Your task to perform on an android device: toggle translation in the chrome app Image 0: 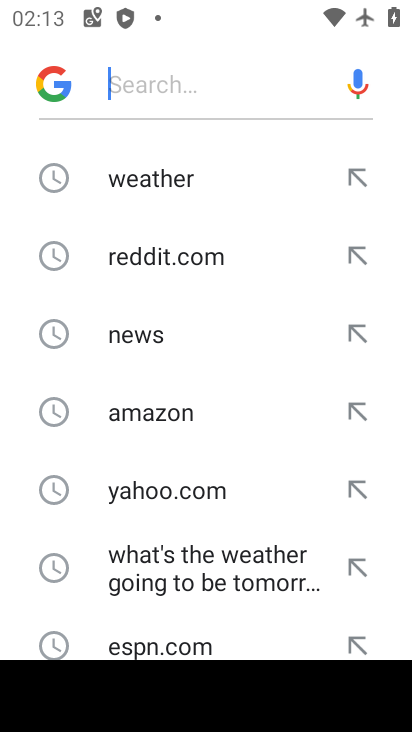
Step 0: press home button
Your task to perform on an android device: toggle translation in the chrome app Image 1: 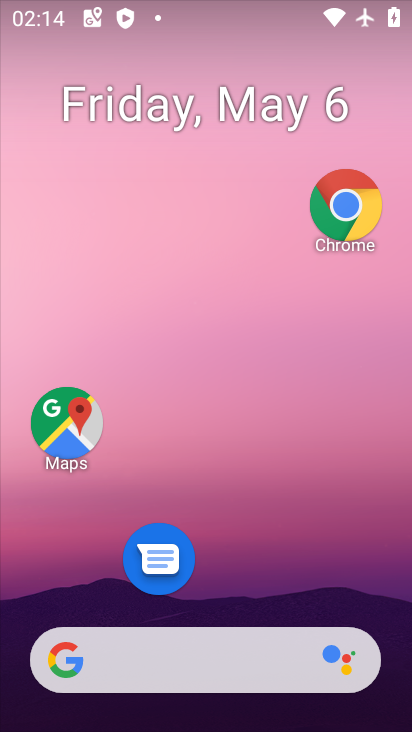
Step 1: click (350, 225)
Your task to perform on an android device: toggle translation in the chrome app Image 2: 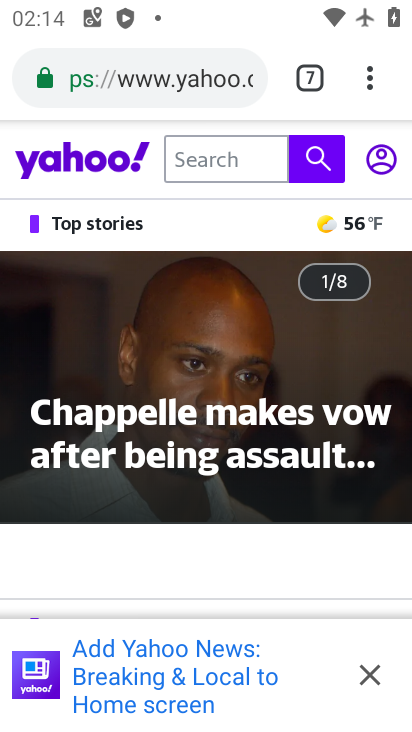
Step 2: drag from (370, 78) to (181, 611)
Your task to perform on an android device: toggle translation in the chrome app Image 3: 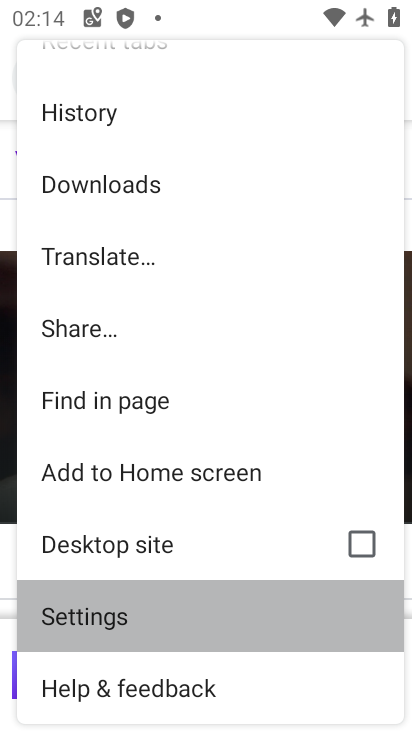
Step 3: click (181, 611)
Your task to perform on an android device: toggle translation in the chrome app Image 4: 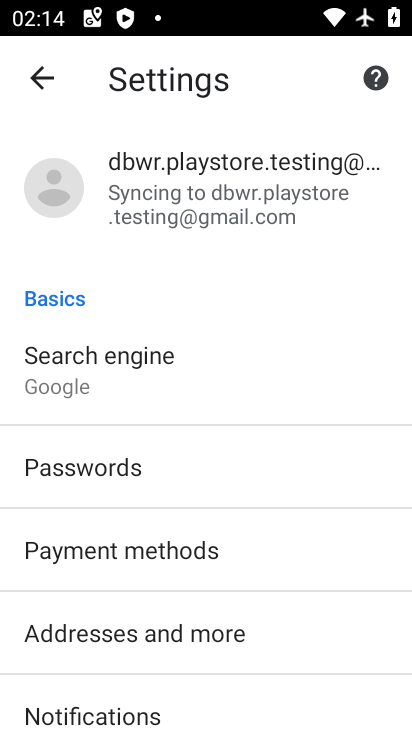
Step 4: drag from (160, 670) to (305, 123)
Your task to perform on an android device: toggle translation in the chrome app Image 5: 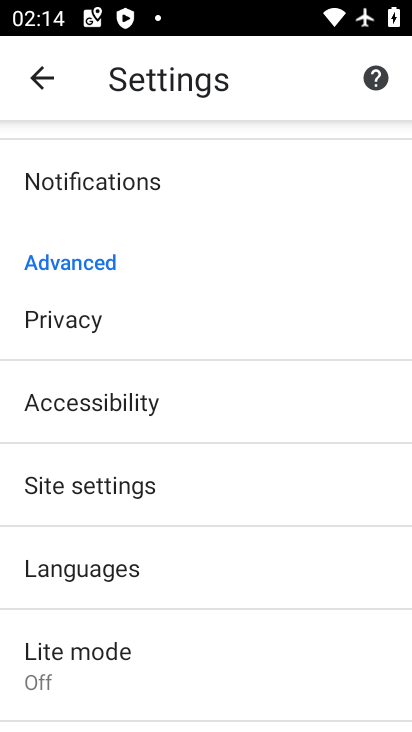
Step 5: click (137, 555)
Your task to perform on an android device: toggle translation in the chrome app Image 6: 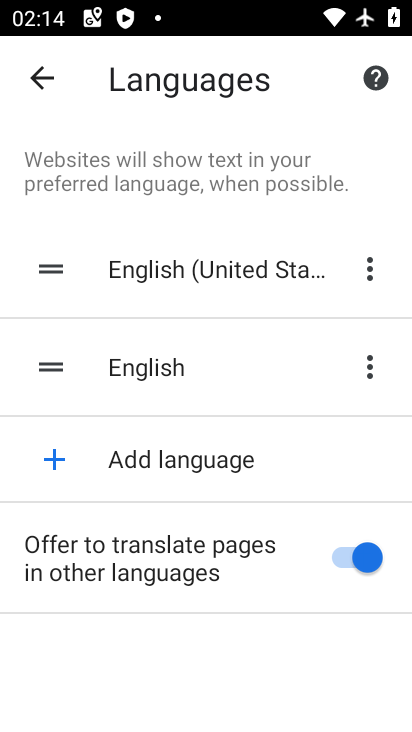
Step 6: click (343, 556)
Your task to perform on an android device: toggle translation in the chrome app Image 7: 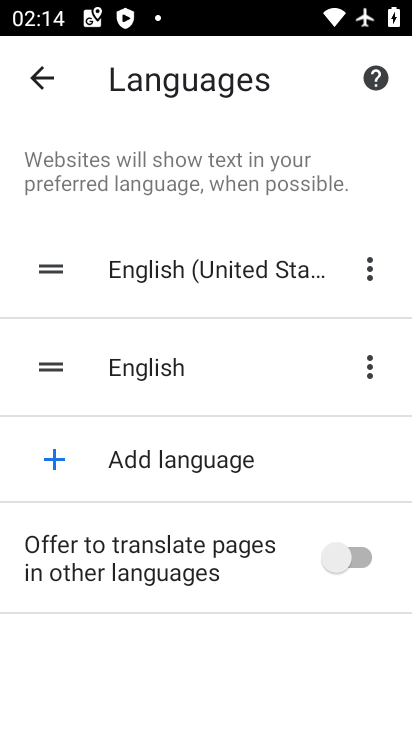
Step 7: task complete